Your task to perform on an android device: turn off translation in the chrome app Image 0: 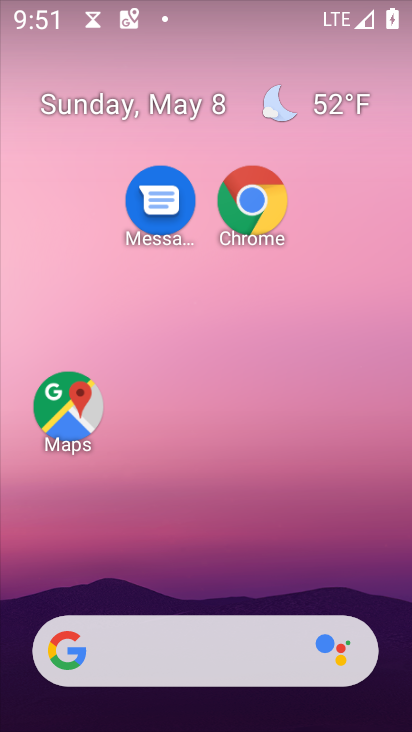
Step 0: click (248, 227)
Your task to perform on an android device: turn off translation in the chrome app Image 1: 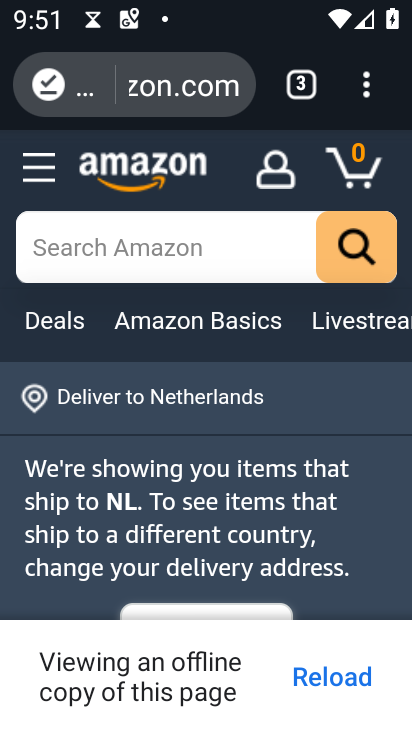
Step 1: click (361, 90)
Your task to perform on an android device: turn off translation in the chrome app Image 2: 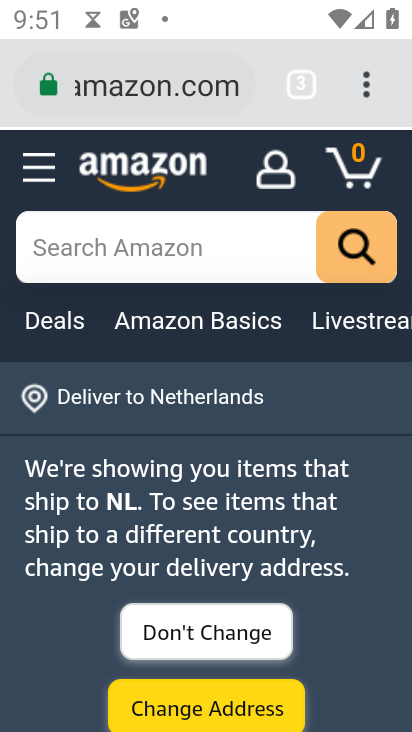
Step 2: click (376, 84)
Your task to perform on an android device: turn off translation in the chrome app Image 3: 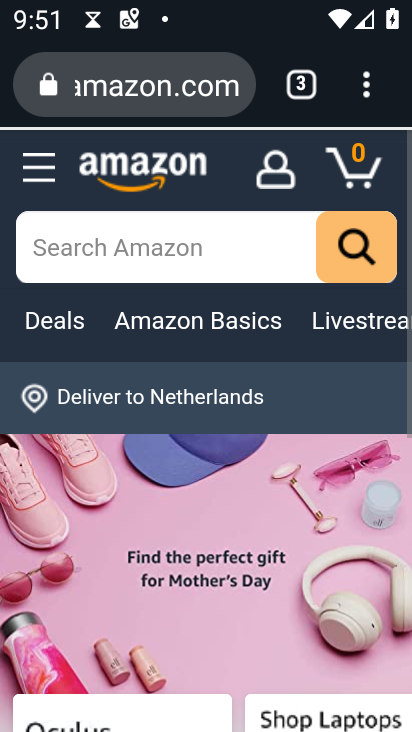
Step 3: drag from (366, 88) to (142, 614)
Your task to perform on an android device: turn off translation in the chrome app Image 4: 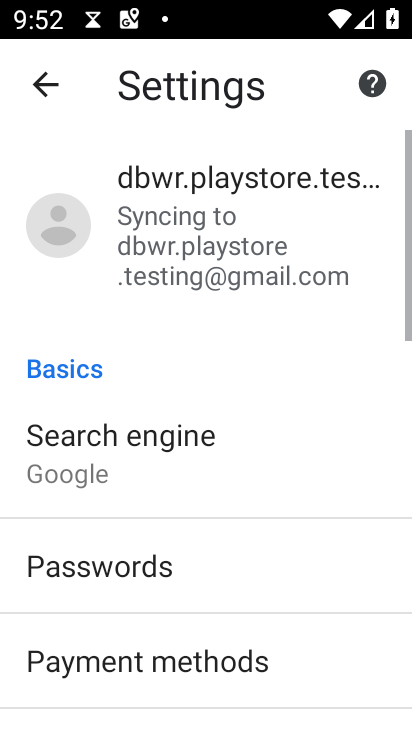
Step 4: drag from (159, 616) to (109, 109)
Your task to perform on an android device: turn off translation in the chrome app Image 5: 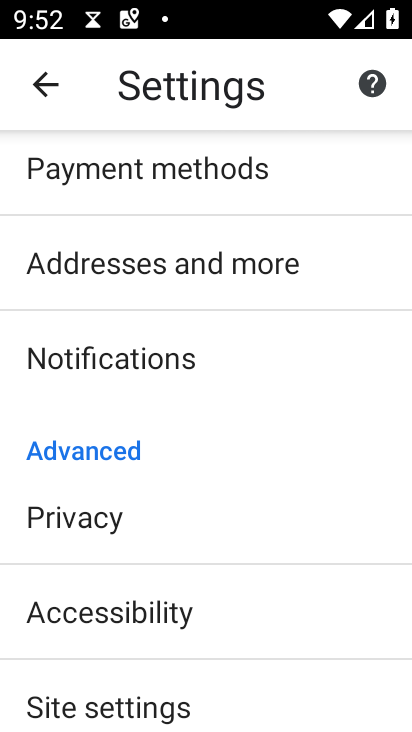
Step 5: drag from (109, 640) to (76, 252)
Your task to perform on an android device: turn off translation in the chrome app Image 6: 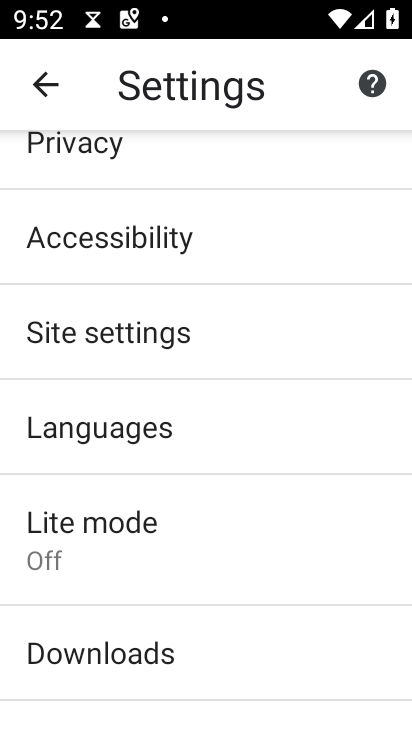
Step 6: click (89, 436)
Your task to perform on an android device: turn off translation in the chrome app Image 7: 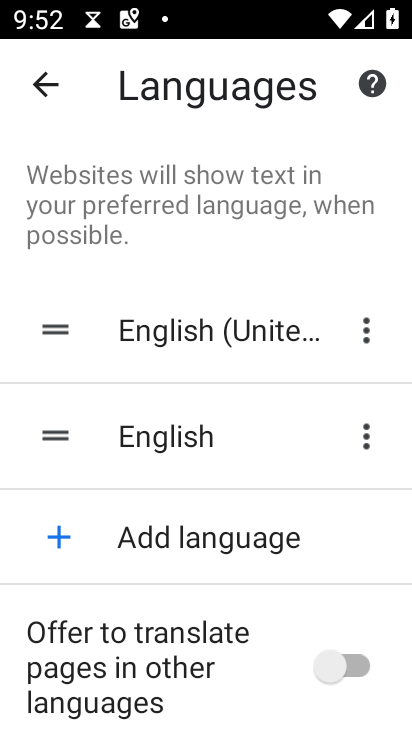
Step 7: task complete